Your task to perform on an android device: turn smart compose on in the gmail app Image 0: 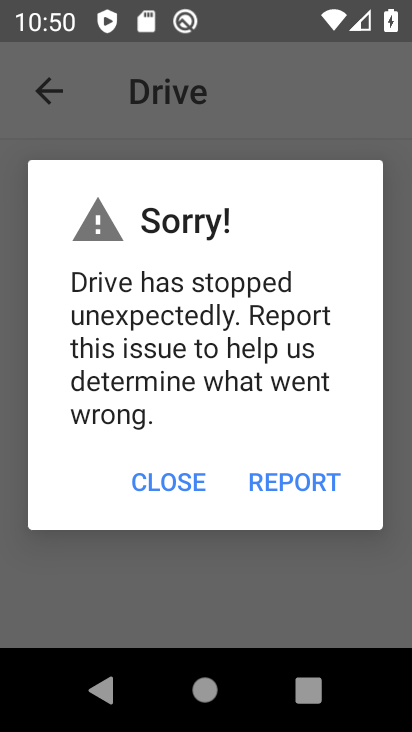
Step 0: press home button
Your task to perform on an android device: turn smart compose on in the gmail app Image 1: 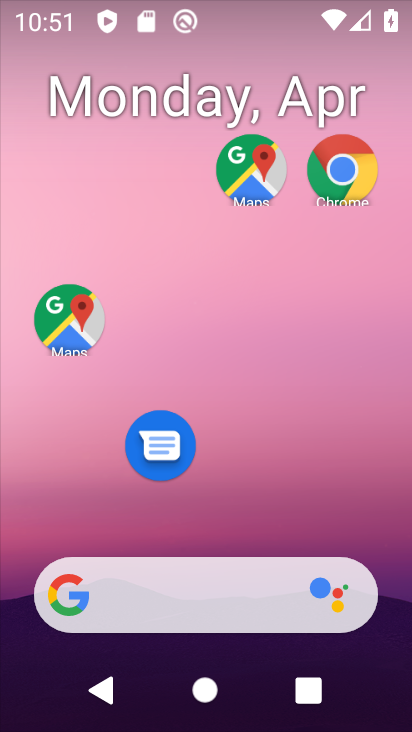
Step 1: drag from (291, 426) to (260, 6)
Your task to perform on an android device: turn smart compose on in the gmail app Image 2: 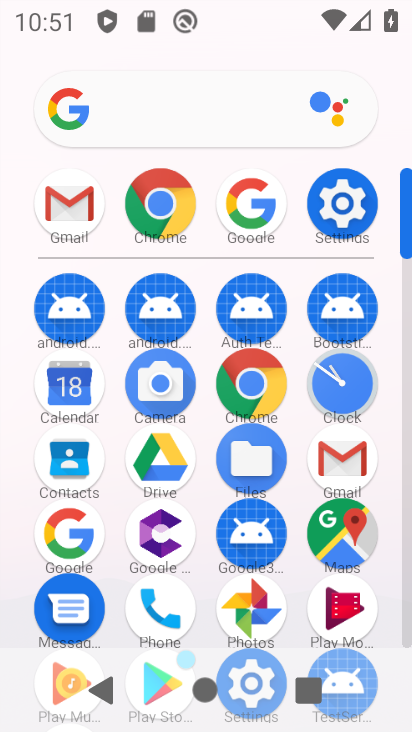
Step 2: click (71, 206)
Your task to perform on an android device: turn smart compose on in the gmail app Image 3: 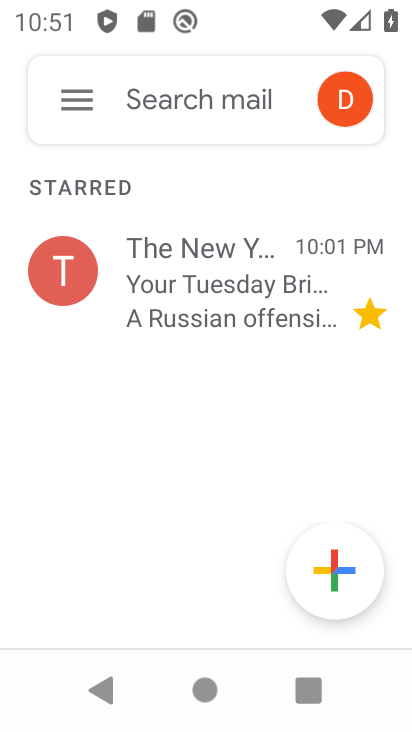
Step 3: click (76, 105)
Your task to perform on an android device: turn smart compose on in the gmail app Image 4: 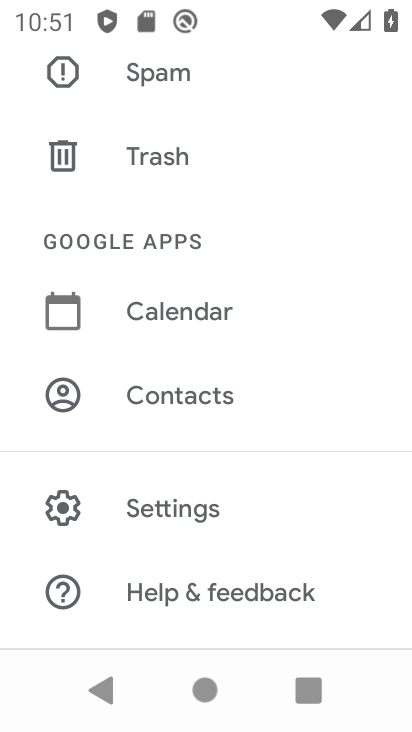
Step 4: click (185, 502)
Your task to perform on an android device: turn smart compose on in the gmail app Image 5: 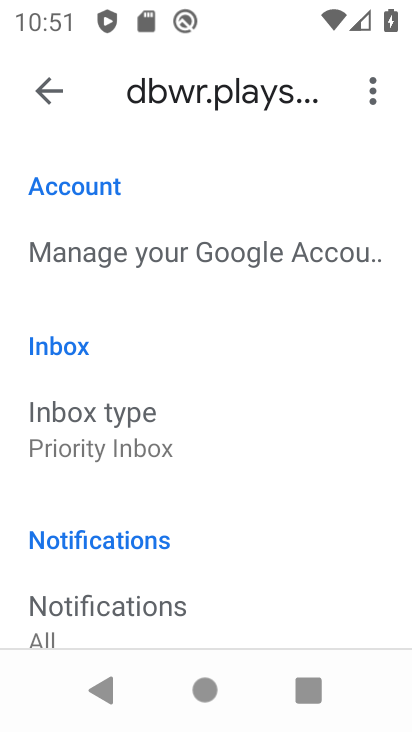
Step 5: task complete